Your task to perform on an android device: Check the news Image 0: 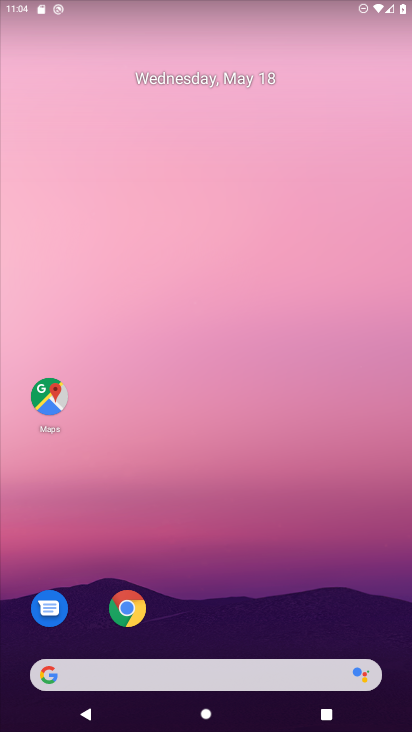
Step 0: drag from (236, 621) to (241, 99)
Your task to perform on an android device: Check the news Image 1: 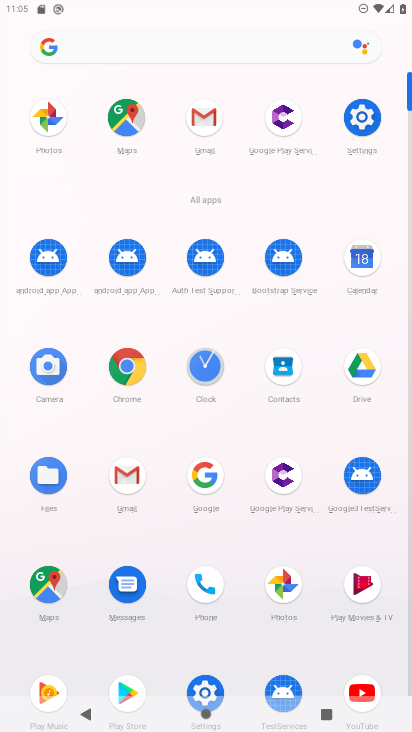
Step 1: click (204, 478)
Your task to perform on an android device: Check the news Image 2: 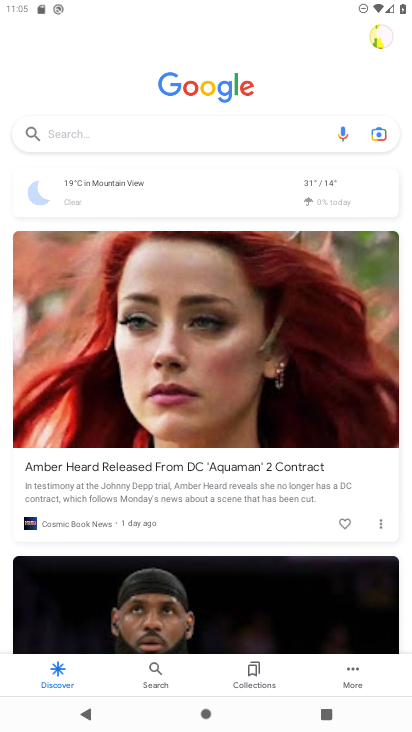
Step 2: click (238, 132)
Your task to perform on an android device: Check the news Image 3: 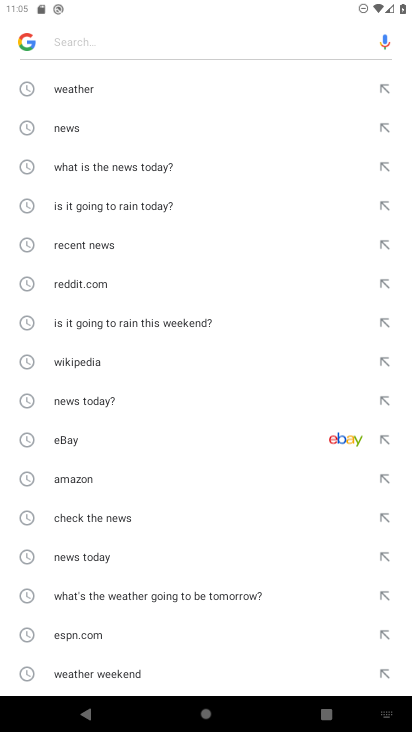
Step 3: click (188, 47)
Your task to perform on an android device: Check the news Image 4: 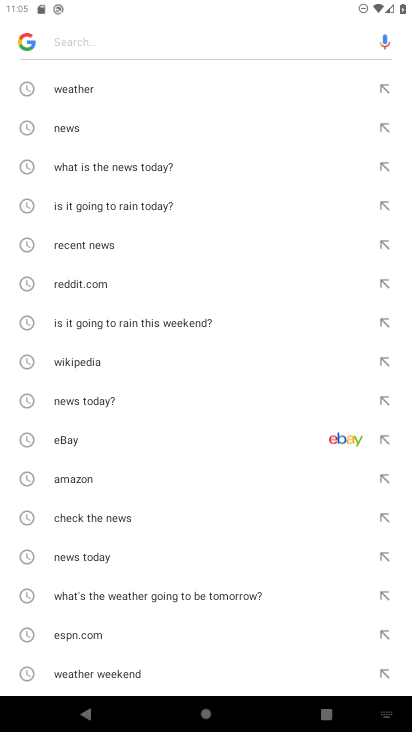
Step 4: click (68, 126)
Your task to perform on an android device: Check the news Image 5: 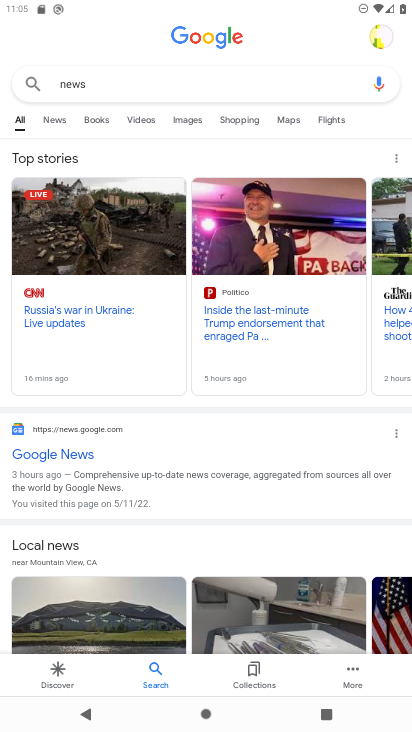
Step 5: click (83, 272)
Your task to perform on an android device: Check the news Image 6: 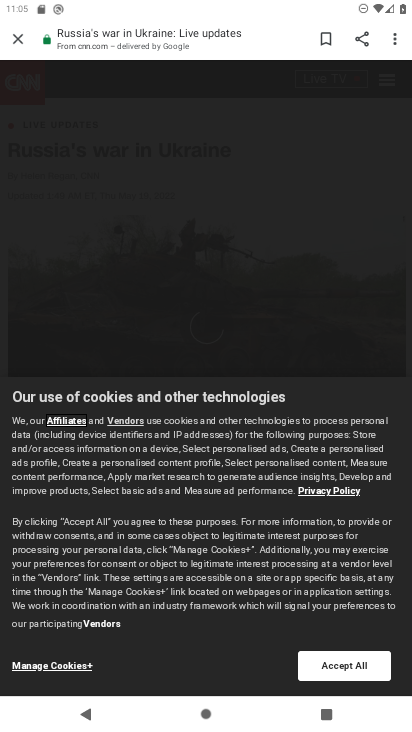
Step 6: task complete